Your task to perform on an android device: Open network settings Image 0: 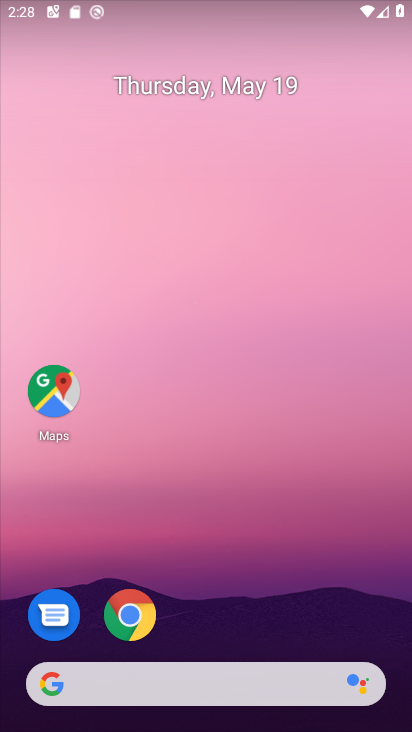
Step 0: drag from (281, 520) to (228, 26)
Your task to perform on an android device: Open network settings Image 1: 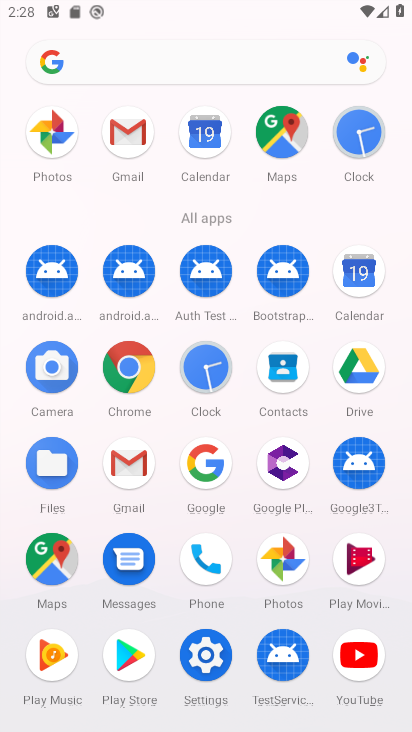
Step 1: drag from (10, 546) to (17, 247)
Your task to perform on an android device: Open network settings Image 2: 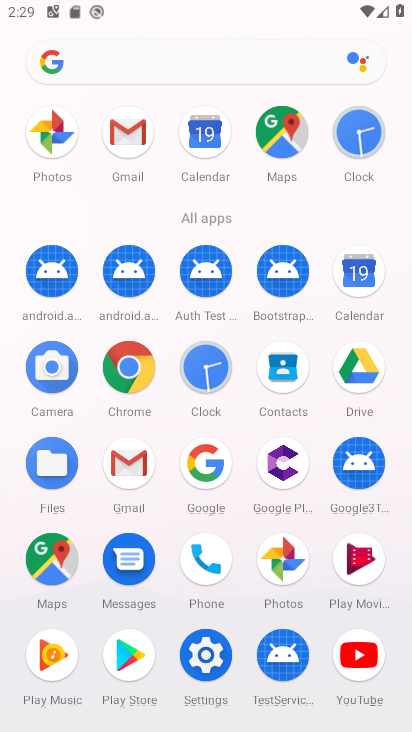
Step 2: click (206, 652)
Your task to perform on an android device: Open network settings Image 3: 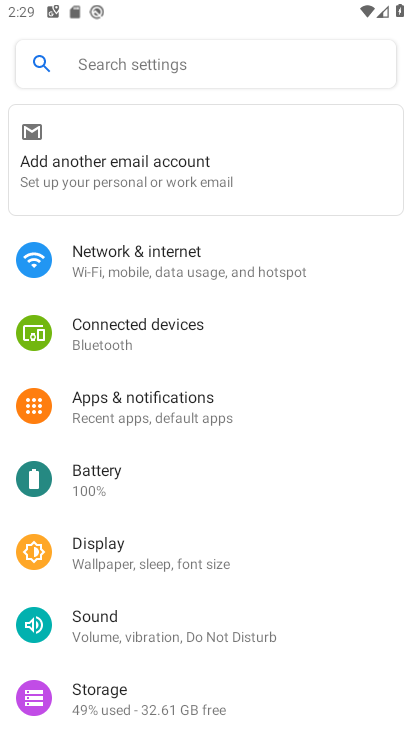
Step 3: click (200, 263)
Your task to perform on an android device: Open network settings Image 4: 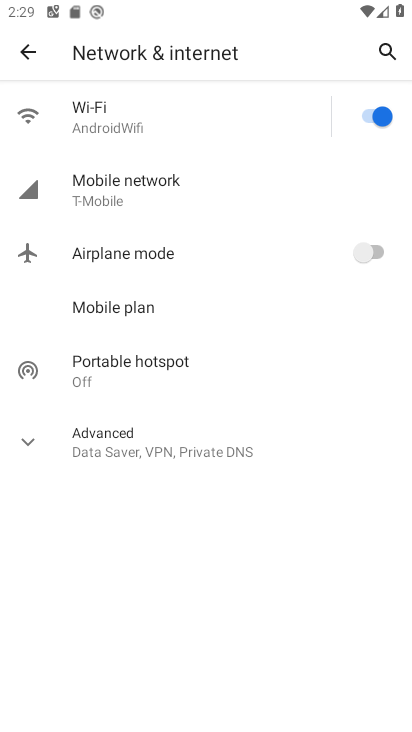
Step 4: click (16, 445)
Your task to perform on an android device: Open network settings Image 5: 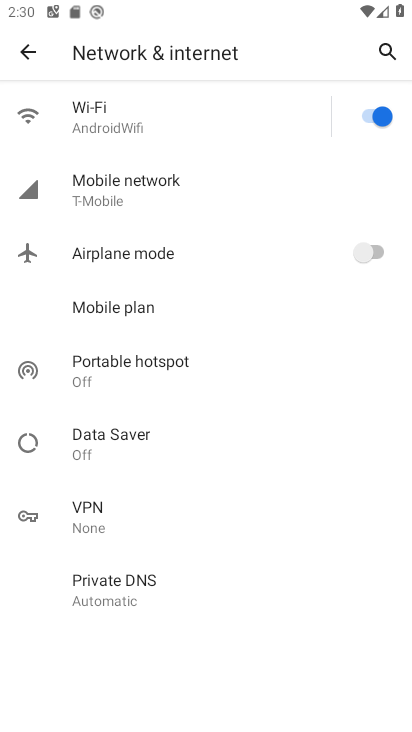
Step 5: task complete